Your task to perform on an android device: Search for sony triple a on target, select the first entry, add it to the cart, then select checkout. Image 0: 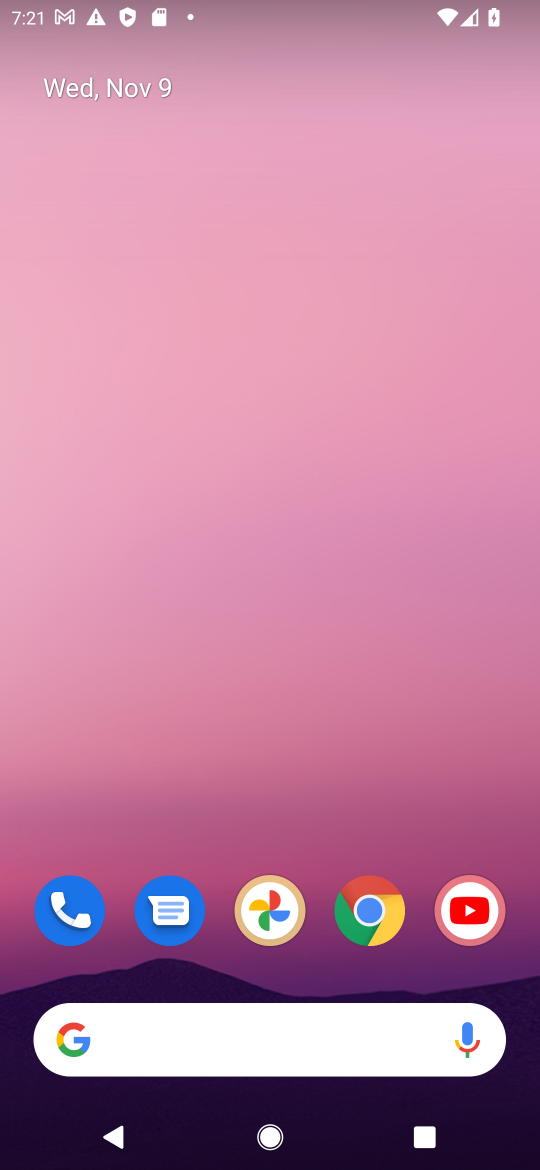
Step 0: click (379, 912)
Your task to perform on an android device: Search for sony triple a on target, select the first entry, add it to the cart, then select checkout. Image 1: 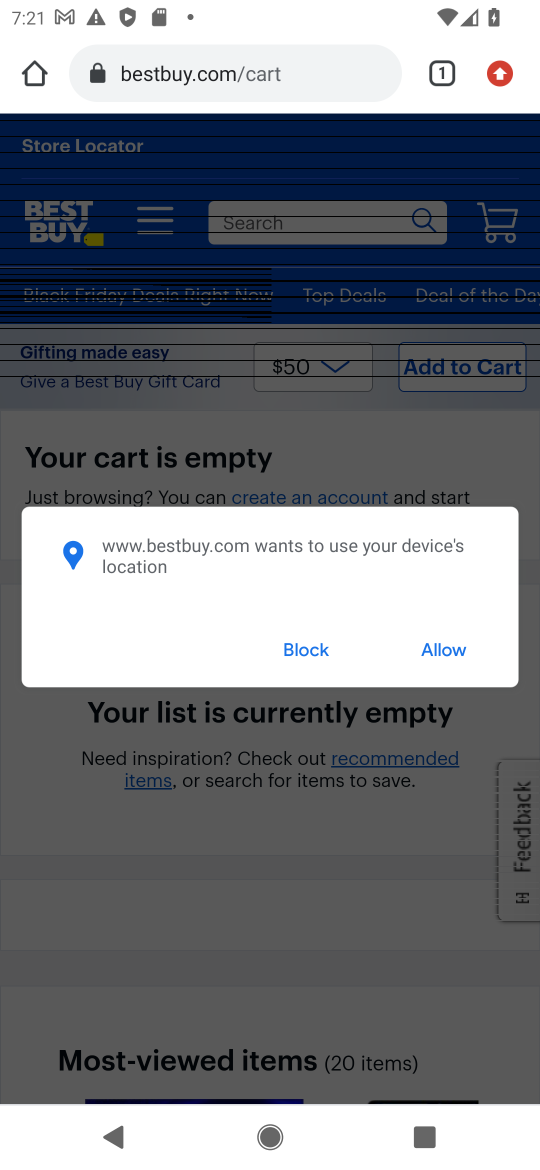
Step 1: click (170, 81)
Your task to perform on an android device: Search for sony triple a on target, select the first entry, add it to the cart, then select checkout. Image 2: 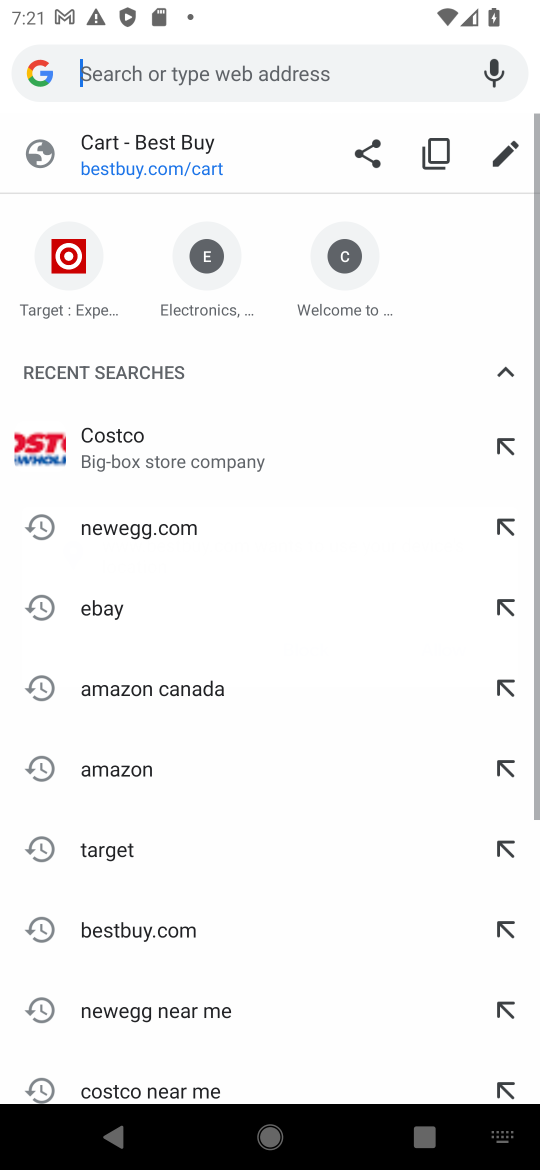
Step 2: click (65, 262)
Your task to perform on an android device: Search for sony triple a on target, select the first entry, add it to the cart, then select checkout. Image 3: 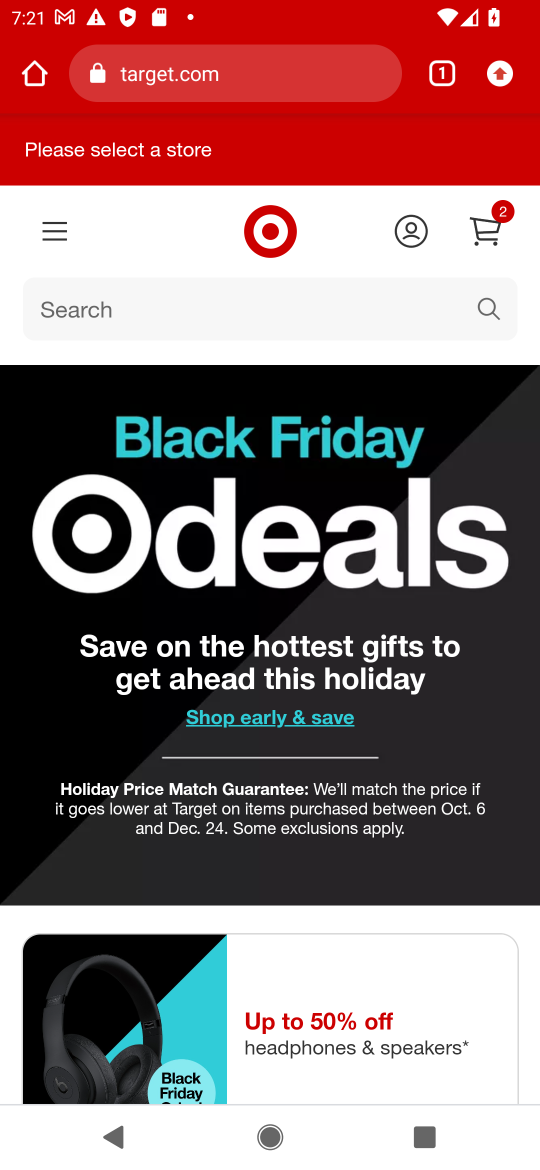
Step 3: click (139, 301)
Your task to perform on an android device: Search for sony triple a on target, select the first entry, add it to the cart, then select checkout. Image 4: 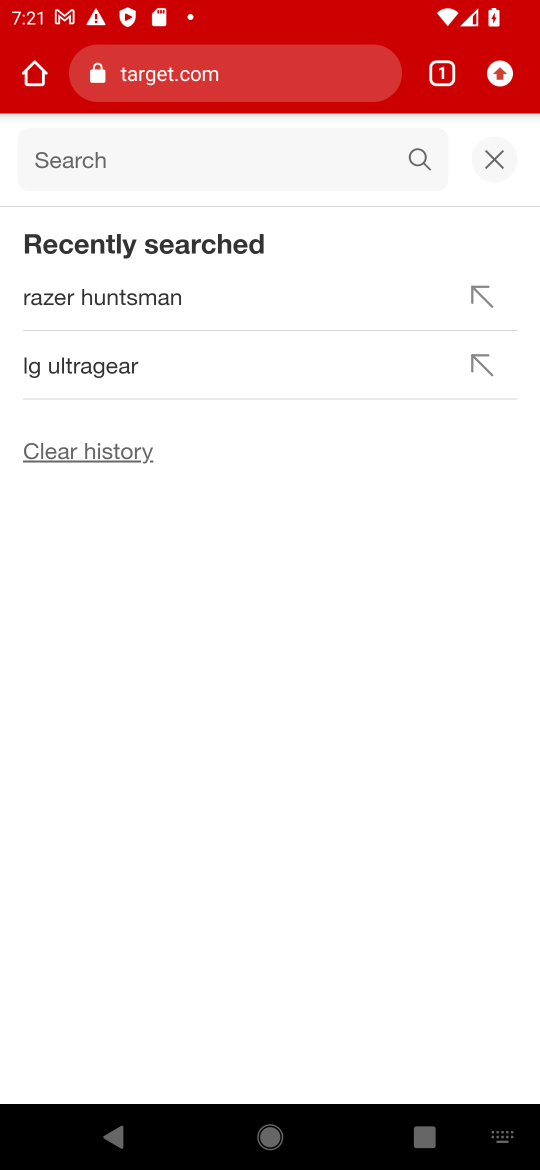
Step 4: type "sony triple a"
Your task to perform on an android device: Search for sony triple a on target, select the first entry, add it to the cart, then select checkout. Image 5: 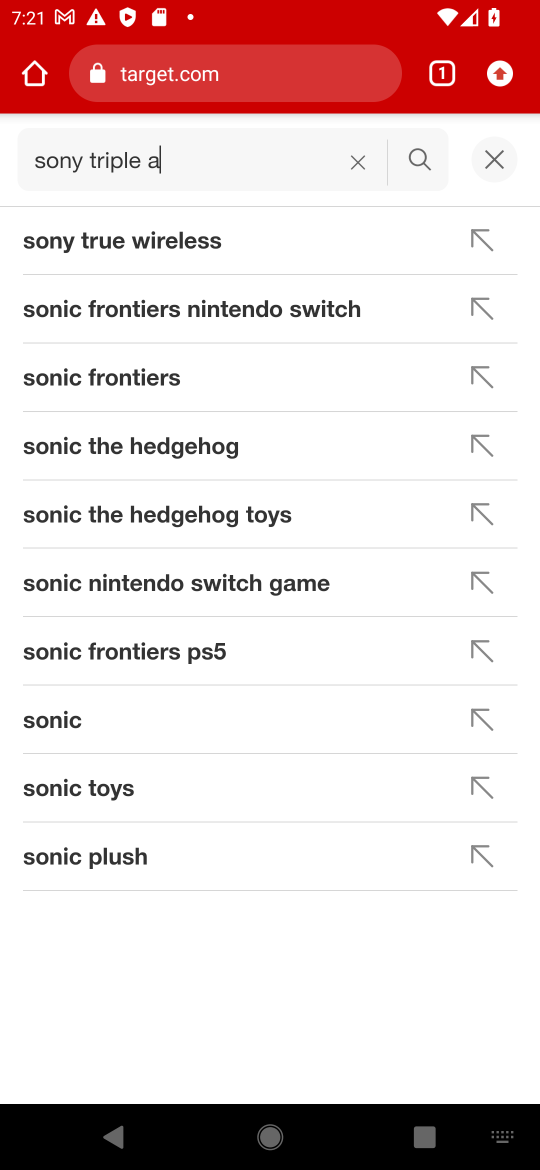
Step 5: click (415, 159)
Your task to perform on an android device: Search for sony triple a on target, select the first entry, add it to the cart, then select checkout. Image 6: 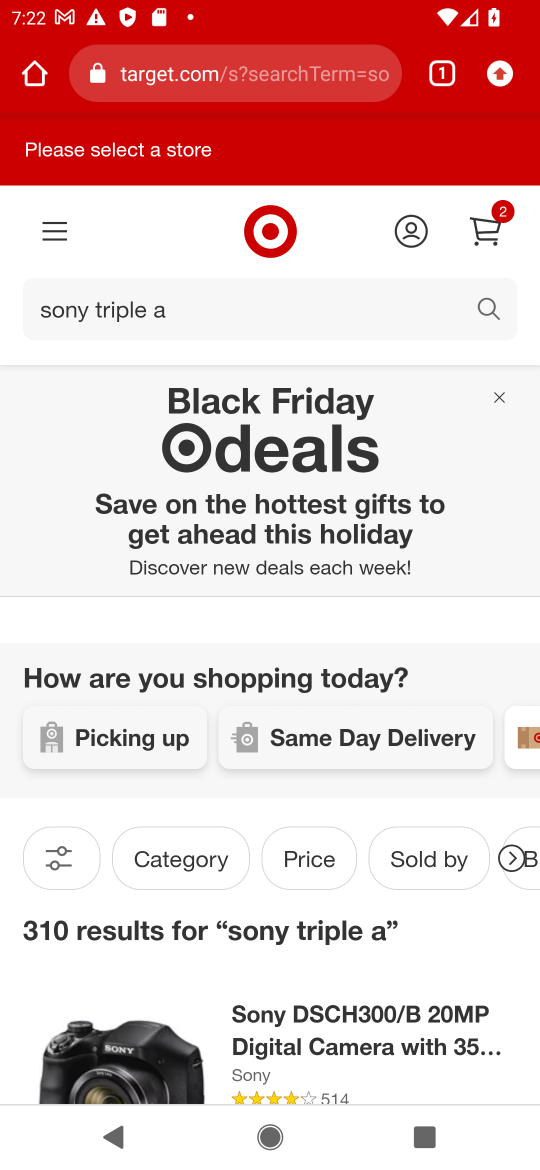
Step 6: task complete